Your task to perform on an android device: set an alarm Image 0: 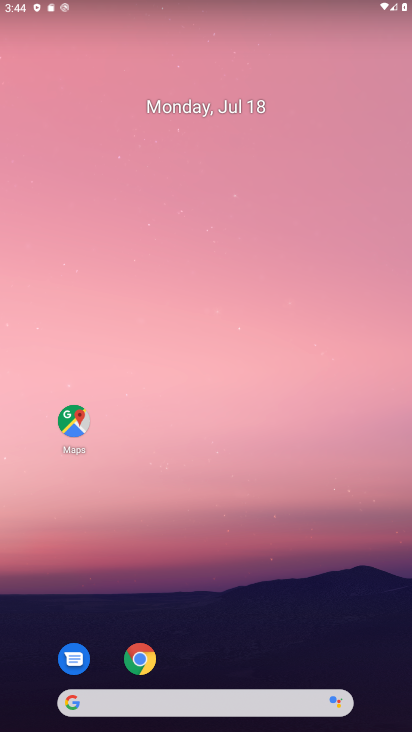
Step 0: drag from (233, 708) to (221, 169)
Your task to perform on an android device: set an alarm Image 1: 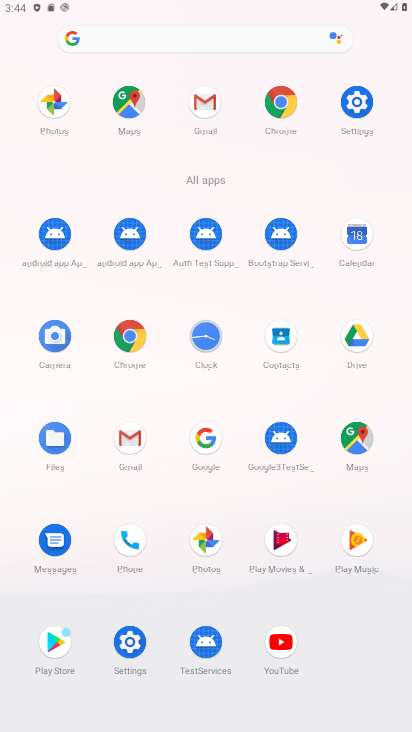
Step 1: click (201, 348)
Your task to perform on an android device: set an alarm Image 2: 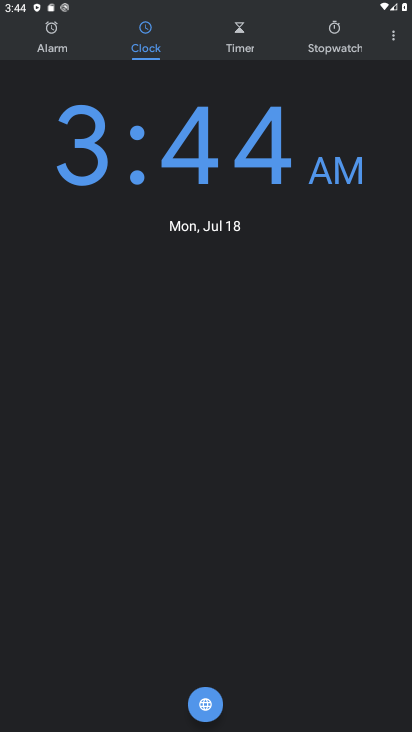
Step 2: click (60, 34)
Your task to perform on an android device: set an alarm Image 3: 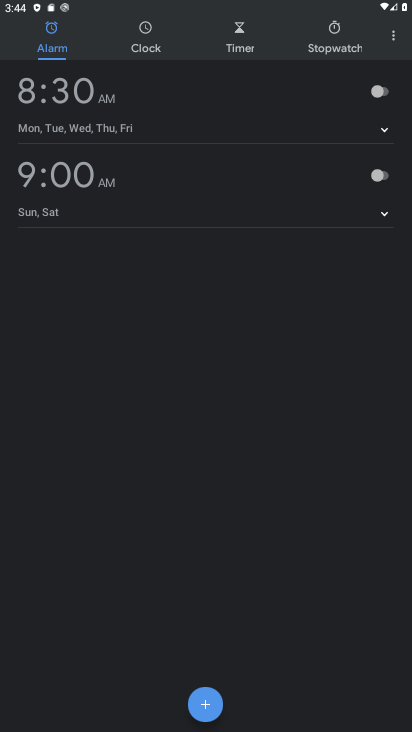
Step 3: task complete